Your task to perform on an android device: Go to notification settings Image 0: 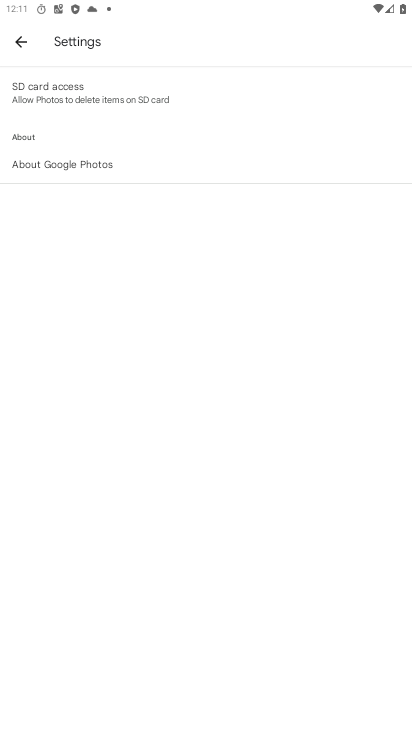
Step 0: press home button
Your task to perform on an android device: Go to notification settings Image 1: 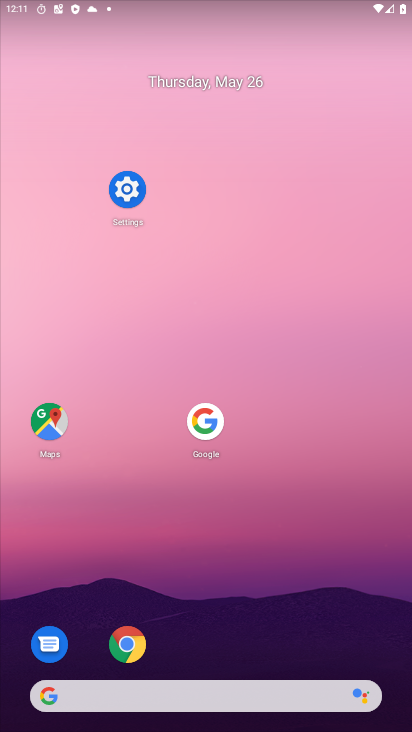
Step 1: drag from (259, 562) to (254, 36)
Your task to perform on an android device: Go to notification settings Image 2: 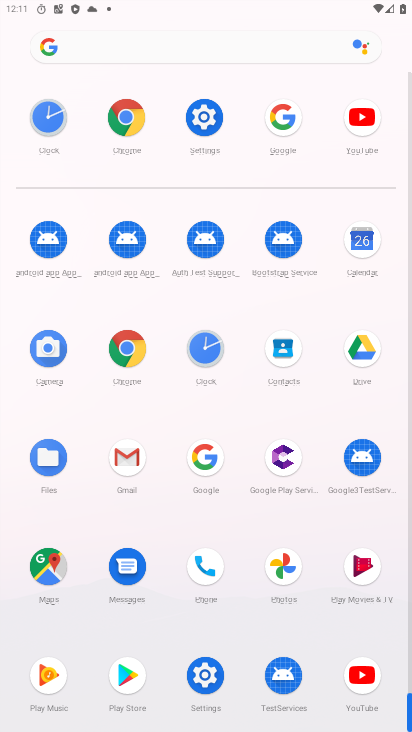
Step 2: click (205, 108)
Your task to perform on an android device: Go to notification settings Image 3: 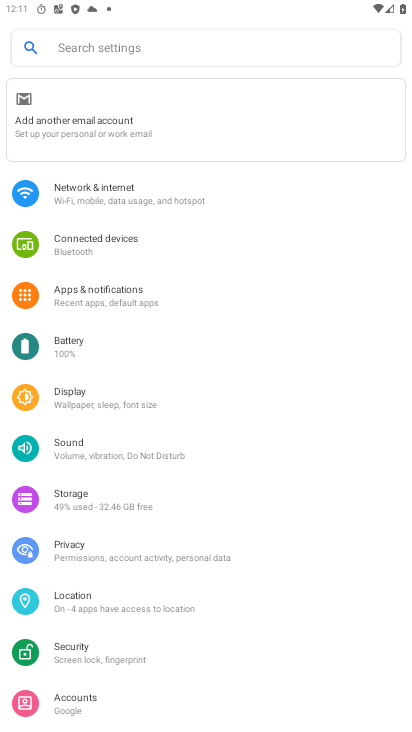
Step 3: click (137, 290)
Your task to perform on an android device: Go to notification settings Image 4: 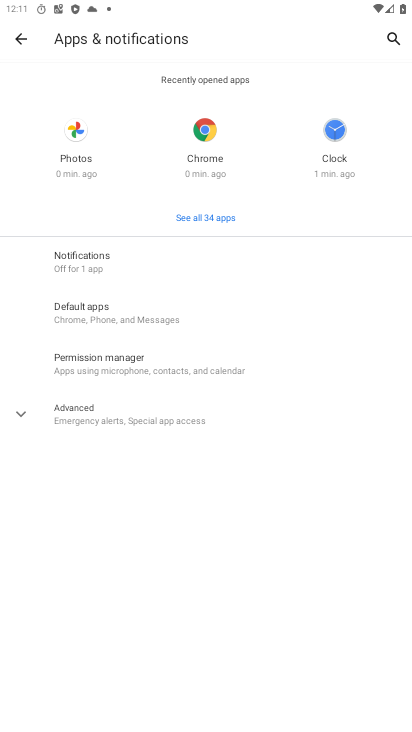
Step 4: click (117, 266)
Your task to perform on an android device: Go to notification settings Image 5: 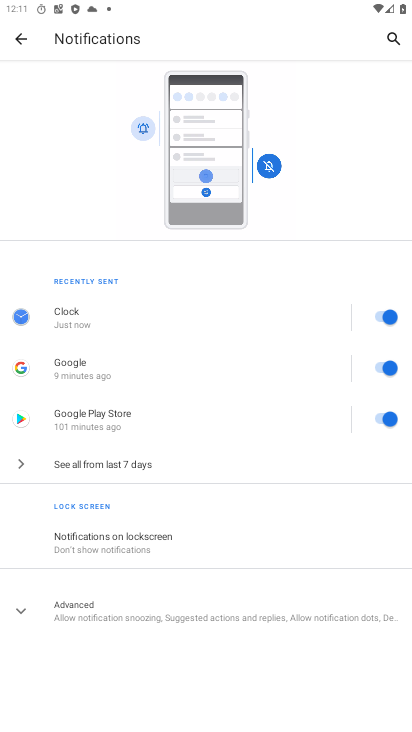
Step 5: click (148, 604)
Your task to perform on an android device: Go to notification settings Image 6: 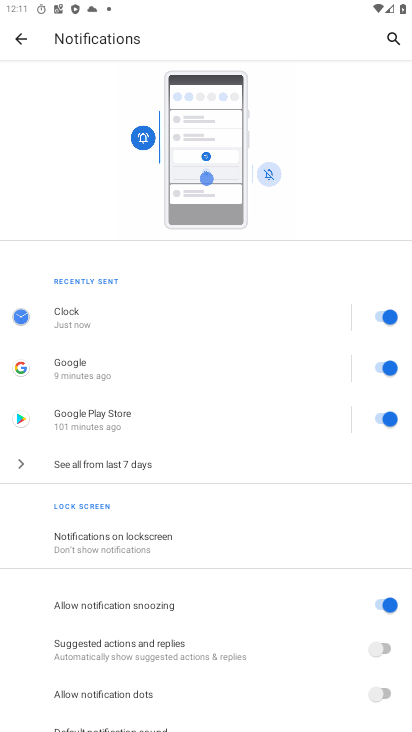
Step 6: task complete